Your task to perform on an android device: Is it going to rain tomorrow? Image 0: 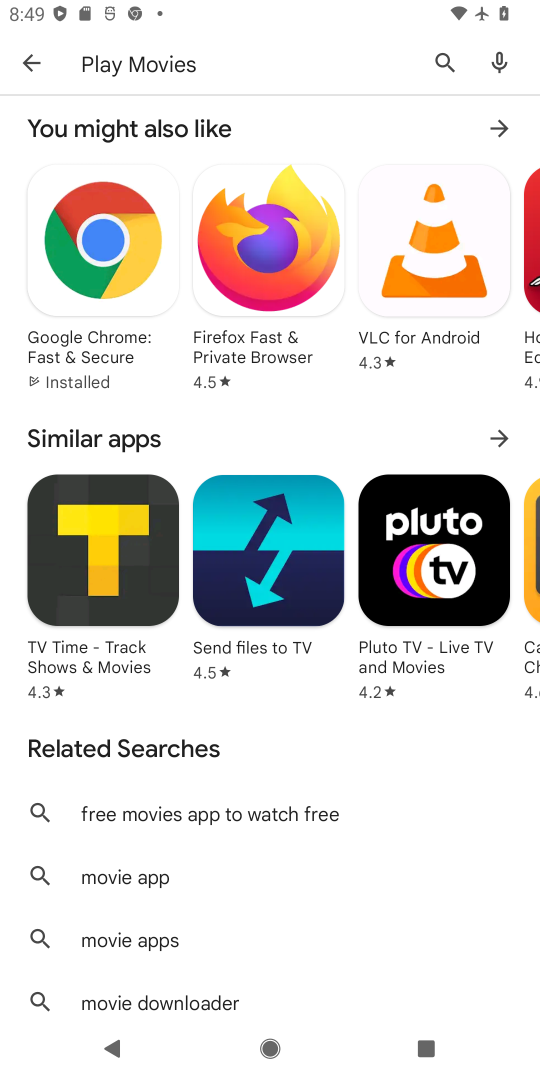
Step 0: press home button
Your task to perform on an android device: Is it going to rain tomorrow? Image 1: 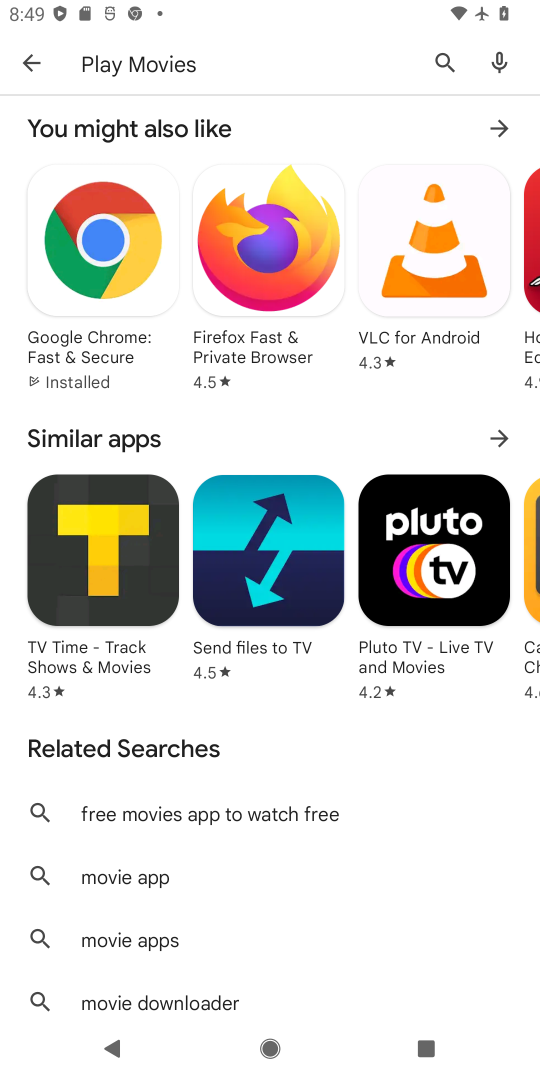
Step 1: press home button
Your task to perform on an android device: Is it going to rain tomorrow? Image 2: 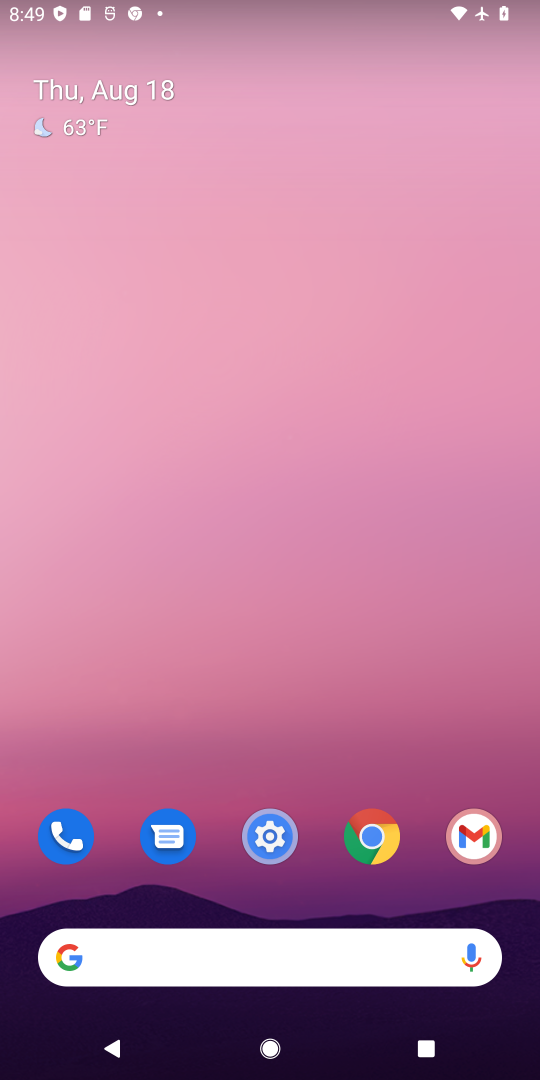
Step 2: click (88, 125)
Your task to perform on an android device: Is it going to rain tomorrow? Image 3: 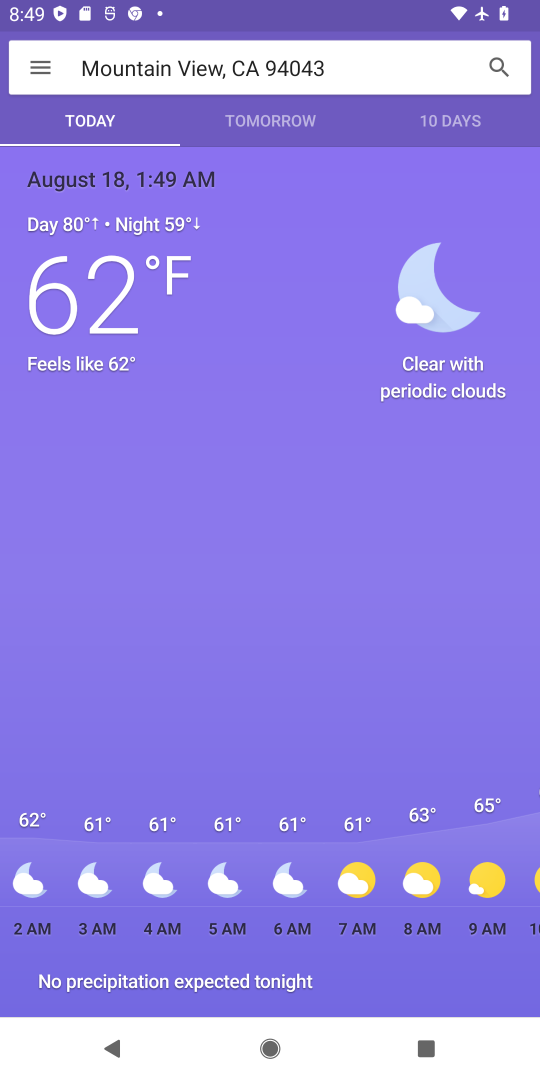
Step 3: click (278, 113)
Your task to perform on an android device: Is it going to rain tomorrow? Image 4: 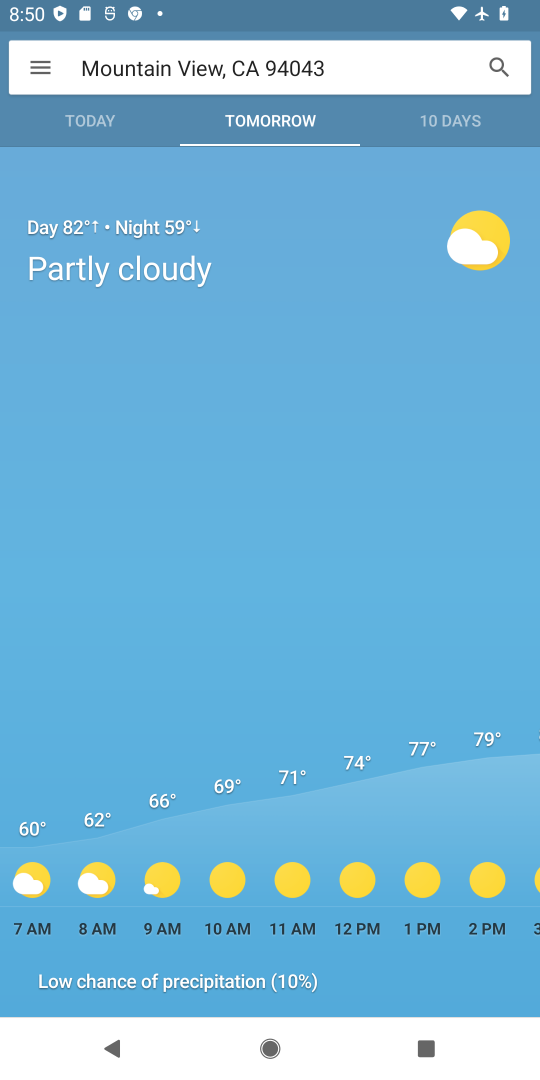
Step 4: task complete